Your task to perform on an android device: Turn on the flashlight Image 0: 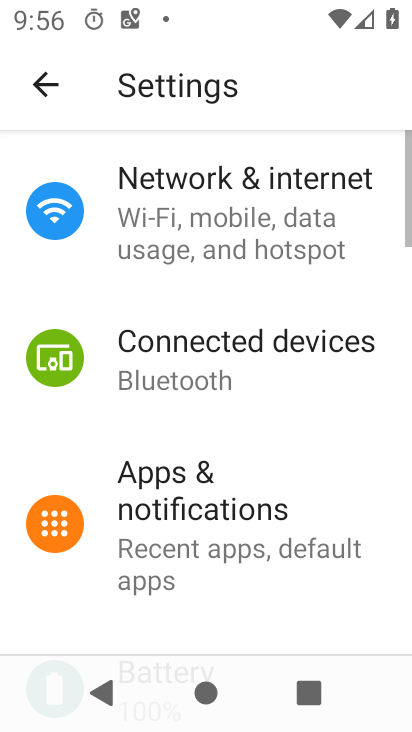
Step 0: press home button
Your task to perform on an android device: Turn on the flashlight Image 1: 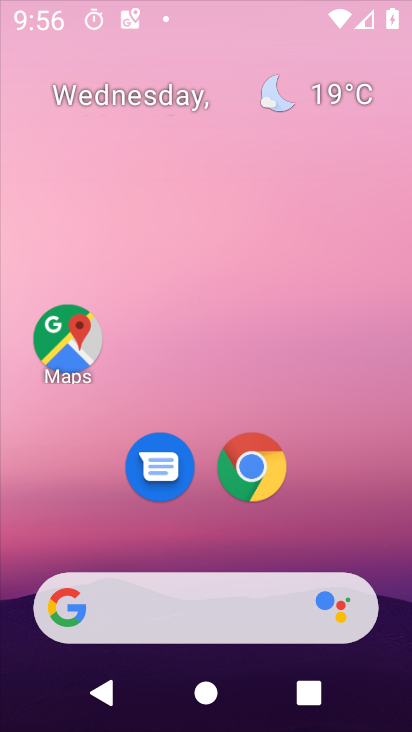
Step 1: task complete